Your task to perform on an android device: install app "WhatsApp Messenger" Image 0: 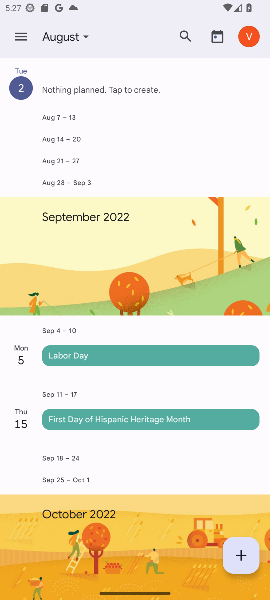
Step 0: press home button
Your task to perform on an android device: install app "WhatsApp Messenger" Image 1: 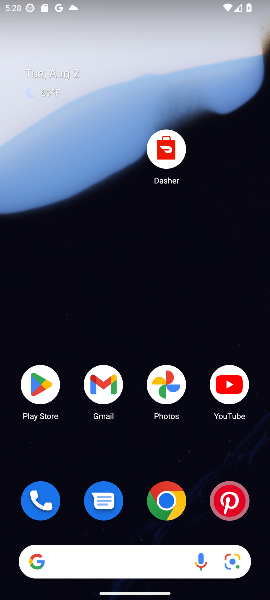
Step 1: click (44, 393)
Your task to perform on an android device: install app "WhatsApp Messenger" Image 2: 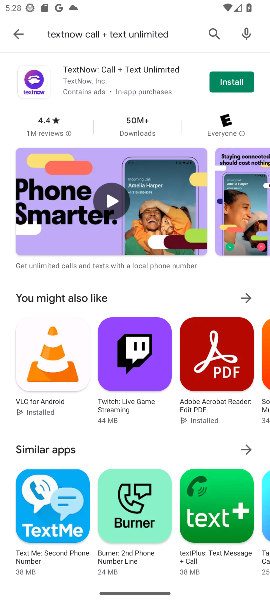
Step 2: click (215, 33)
Your task to perform on an android device: install app "WhatsApp Messenger" Image 3: 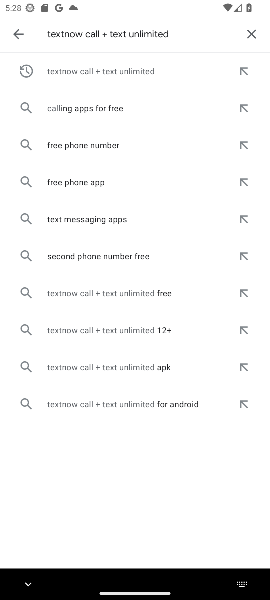
Step 3: click (251, 37)
Your task to perform on an android device: install app "WhatsApp Messenger" Image 4: 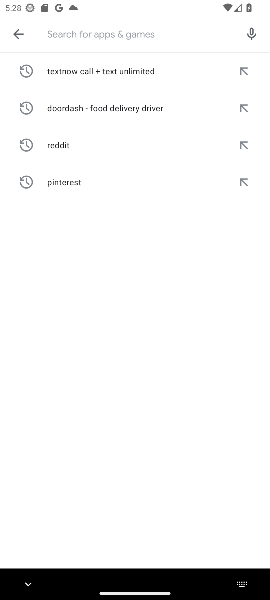
Step 4: type "WhatsApp Messenger"
Your task to perform on an android device: install app "WhatsApp Messenger" Image 5: 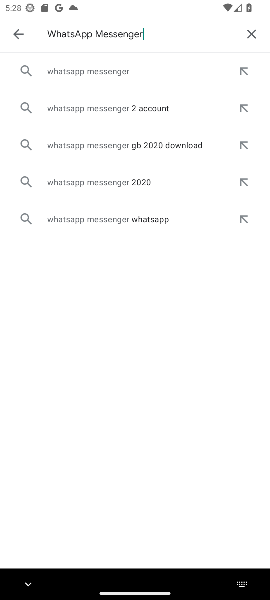
Step 5: click (80, 77)
Your task to perform on an android device: install app "WhatsApp Messenger" Image 6: 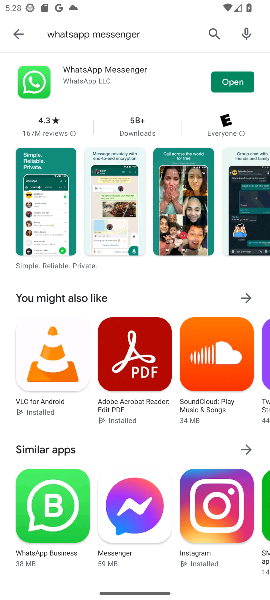
Step 6: task complete